Your task to perform on an android device: show emergency info Image 0: 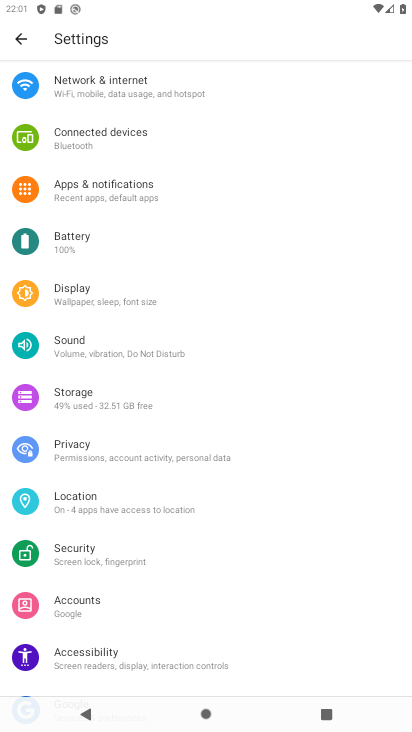
Step 0: press home button
Your task to perform on an android device: show emergency info Image 1: 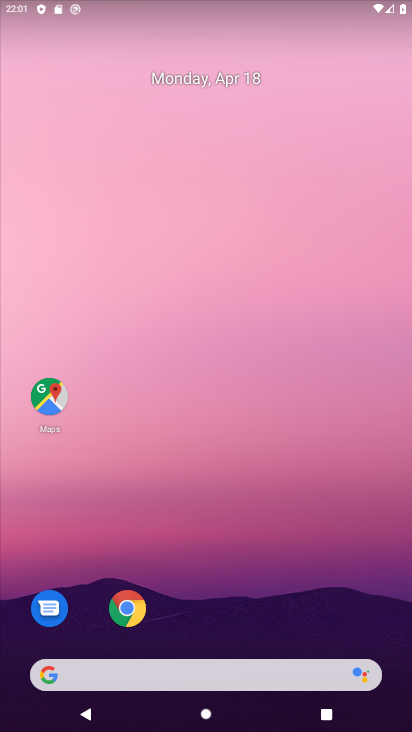
Step 1: drag from (242, 558) to (242, 82)
Your task to perform on an android device: show emergency info Image 2: 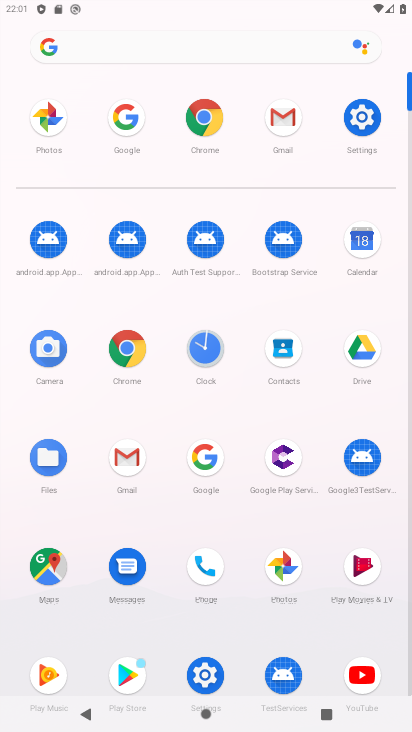
Step 2: click (363, 112)
Your task to perform on an android device: show emergency info Image 3: 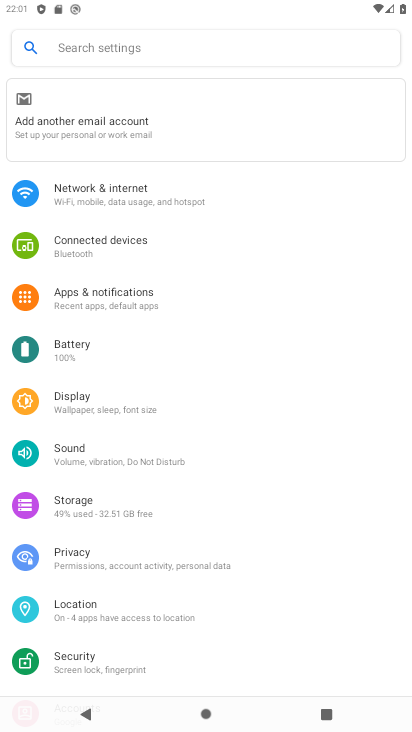
Step 3: drag from (204, 459) to (181, 180)
Your task to perform on an android device: show emergency info Image 4: 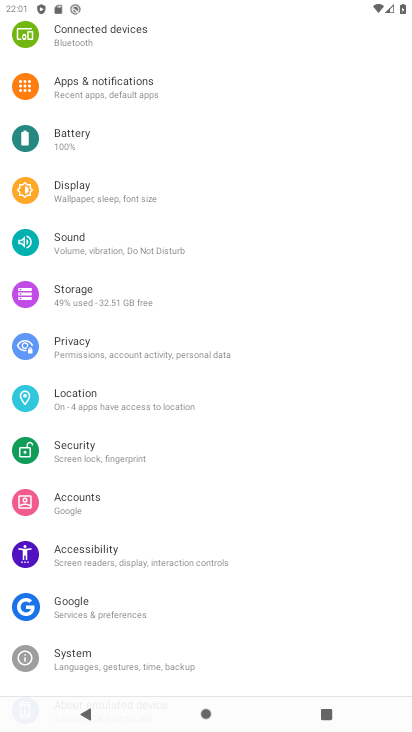
Step 4: drag from (220, 532) to (194, 110)
Your task to perform on an android device: show emergency info Image 5: 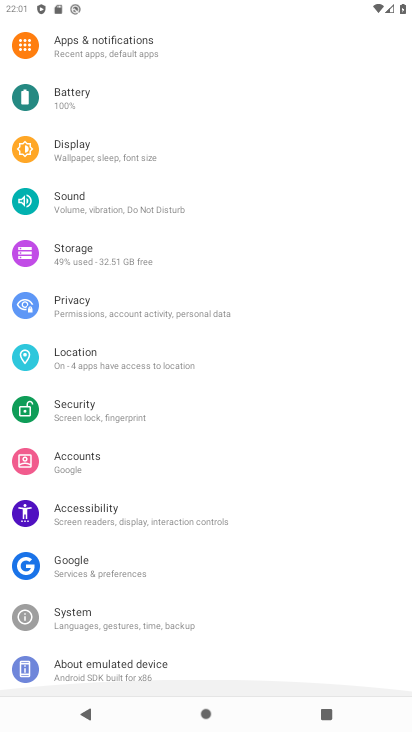
Step 5: click (121, 661)
Your task to perform on an android device: show emergency info Image 6: 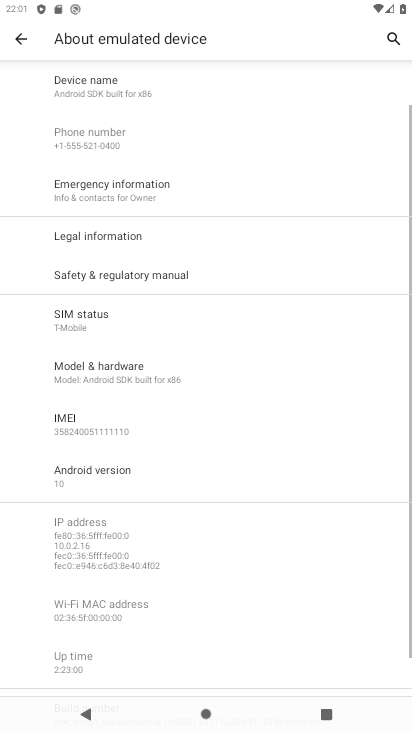
Step 6: drag from (172, 198) to (197, 480)
Your task to perform on an android device: show emergency info Image 7: 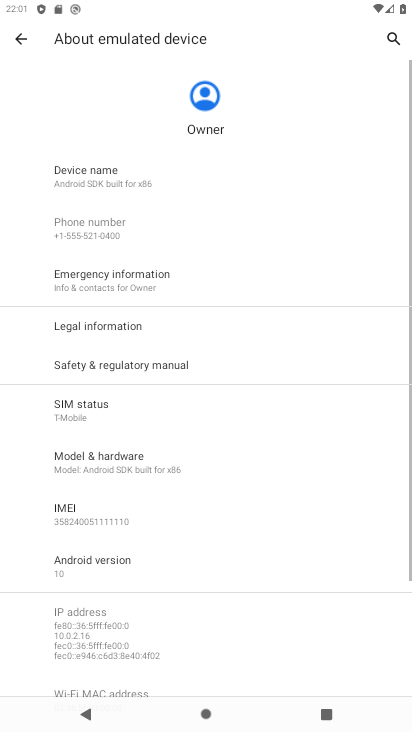
Step 7: click (85, 289)
Your task to perform on an android device: show emergency info Image 8: 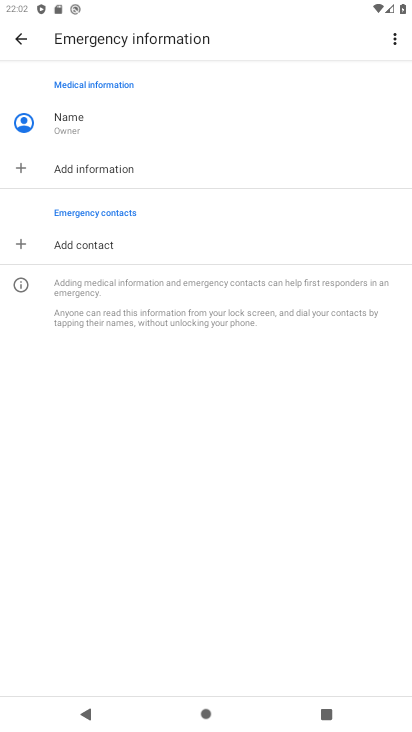
Step 8: task complete